Your task to perform on an android device: change text size in settings app Image 0: 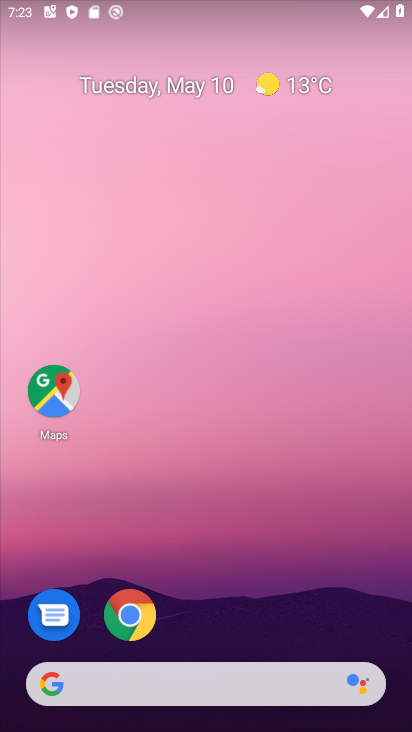
Step 0: drag from (228, 534) to (128, 38)
Your task to perform on an android device: change text size in settings app Image 1: 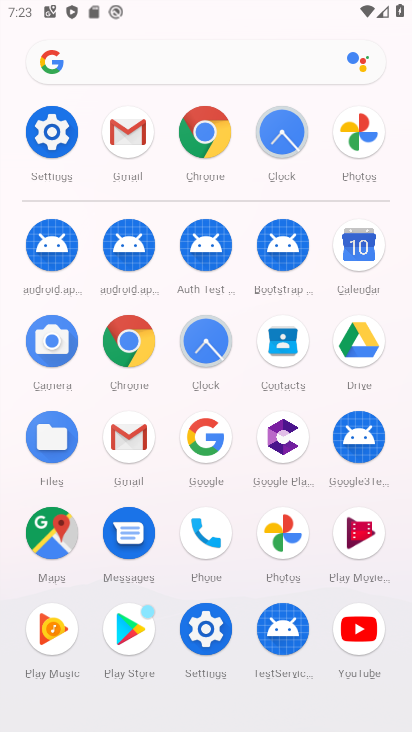
Step 1: click (47, 129)
Your task to perform on an android device: change text size in settings app Image 2: 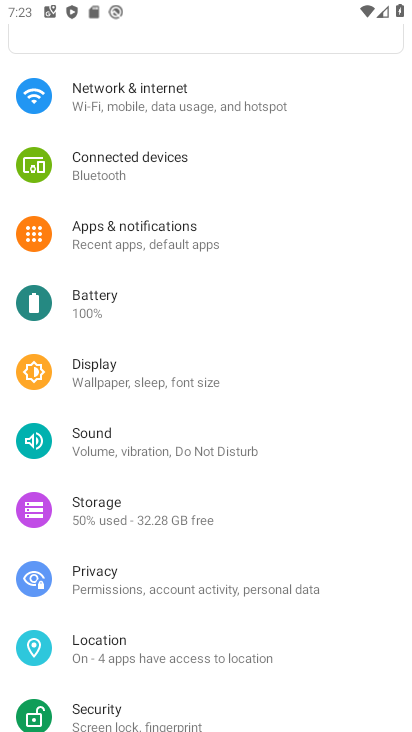
Step 2: click (104, 374)
Your task to perform on an android device: change text size in settings app Image 3: 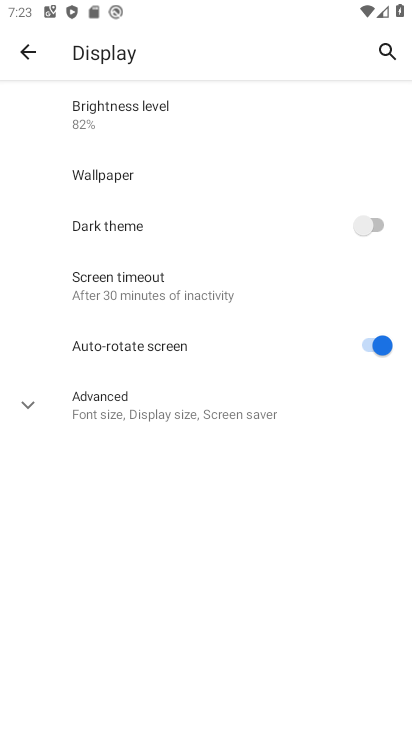
Step 3: click (116, 403)
Your task to perform on an android device: change text size in settings app Image 4: 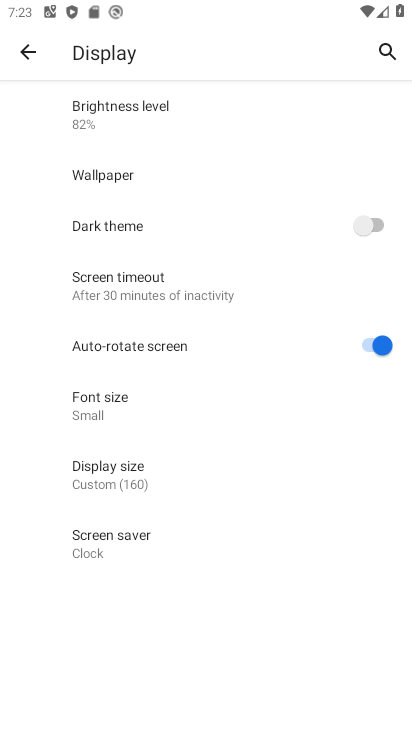
Step 4: click (113, 398)
Your task to perform on an android device: change text size in settings app Image 5: 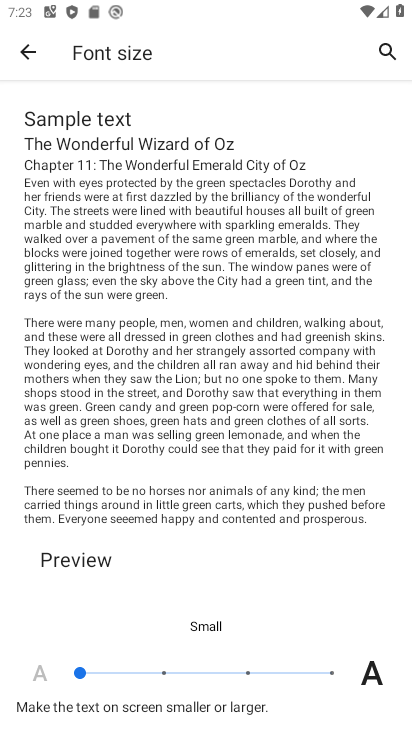
Step 5: click (165, 661)
Your task to perform on an android device: change text size in settings app Image 6: 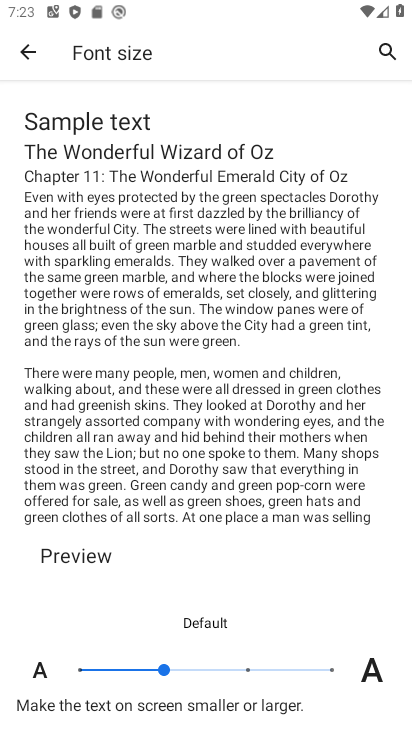
Step 6: task complete